Your task to perform on an android device: set an alarm Image 0: 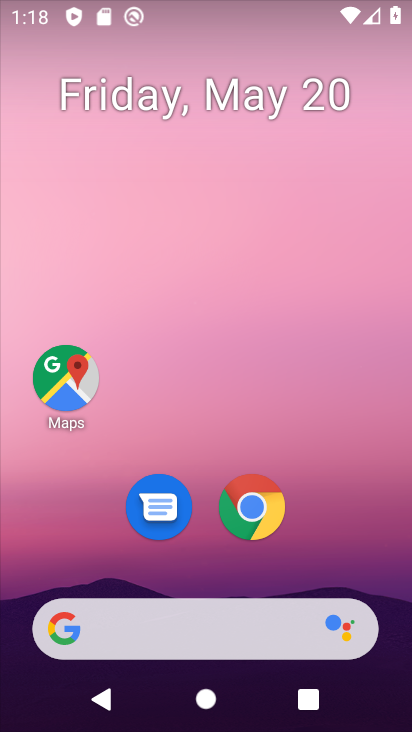
Step 0: drag from (385, 592) to (293, 227)
Your task to perform on an android device: set an alarm Image 1: 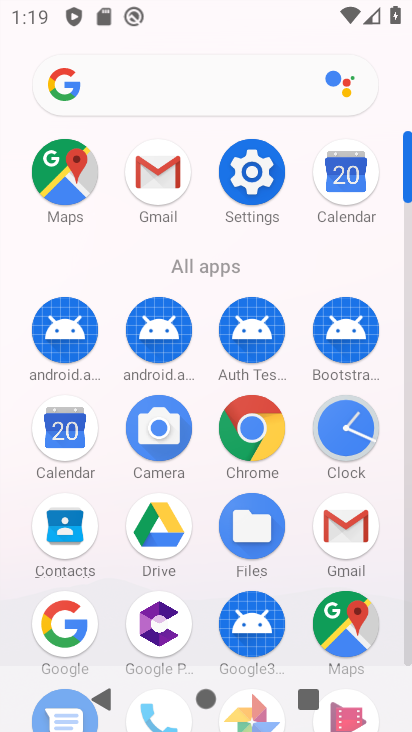
Step 1: click (342, 431)
Your task to perform on an android device: set an alarm Image 2: 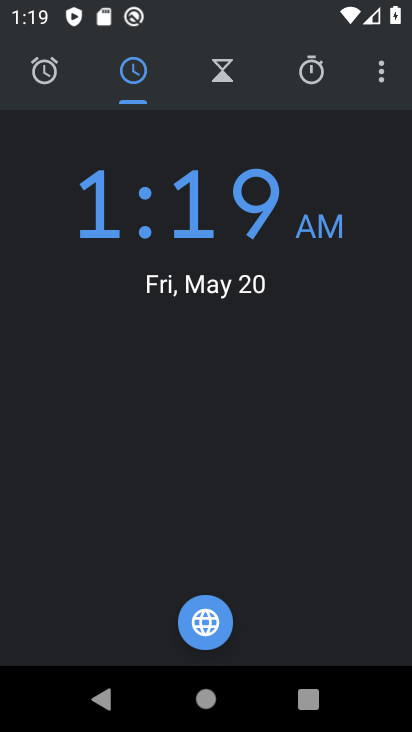
Step 2: click (41, 60)
Your task to perform on an android device: set an alarm Image 3: 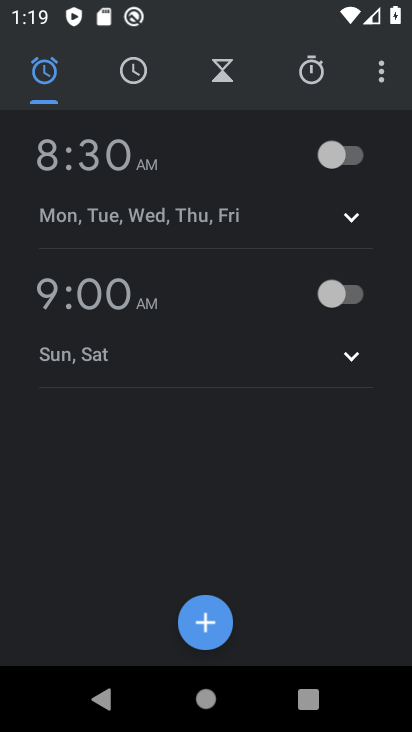
Step 3: click (206, 623)
Your task to perform on an android device: set an alarm Image 4: 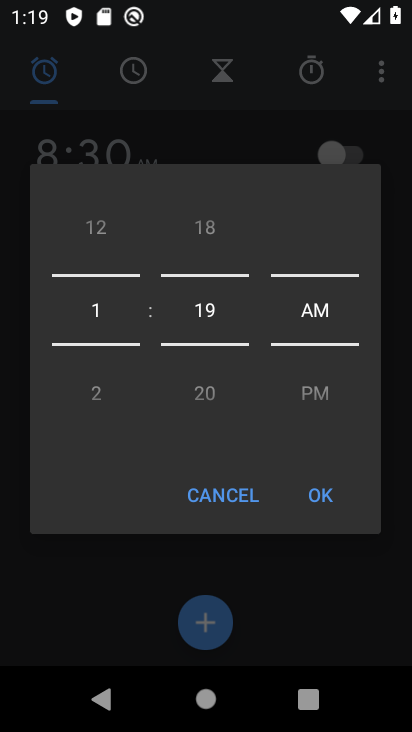
Step 4: click (325, 493)
Your task to perform on an android device: set an alarm Image 5: 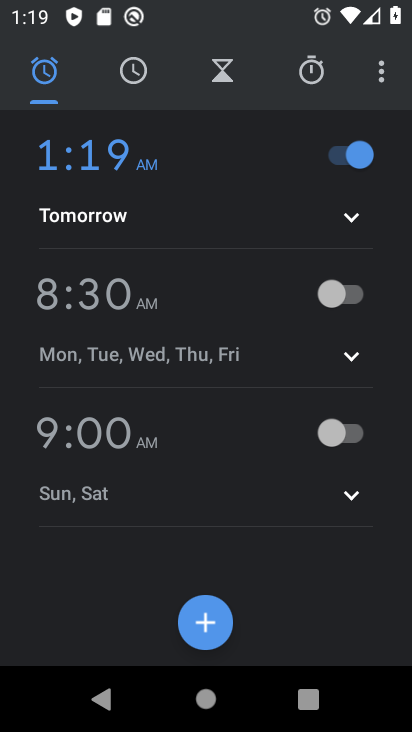
Step 5: task complete